Your task to perform on an android device: turn on wifi Image 0: 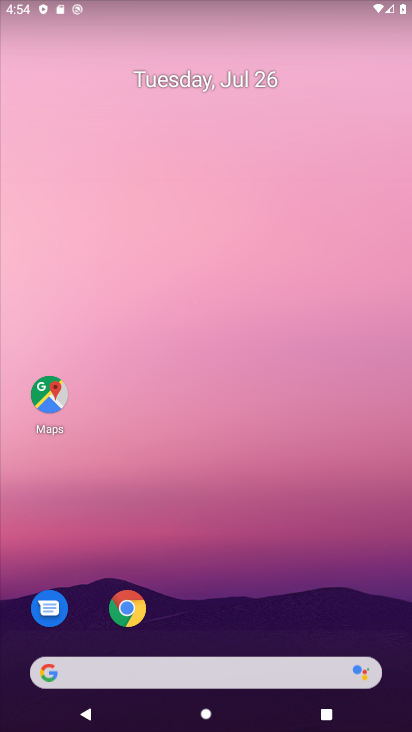
Step 0: drag from (54, 7) to (201, 549)
Your task to perform on an android device: turn on wifi Image 1: 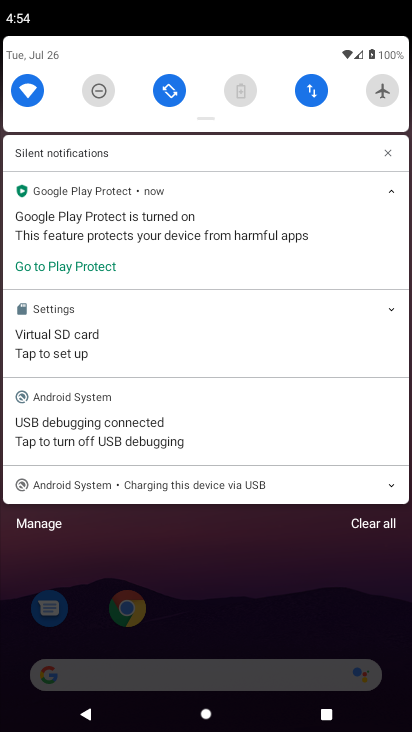
Step 1: task complete